Your task to perform on an android device: change notifications settings Image 0: 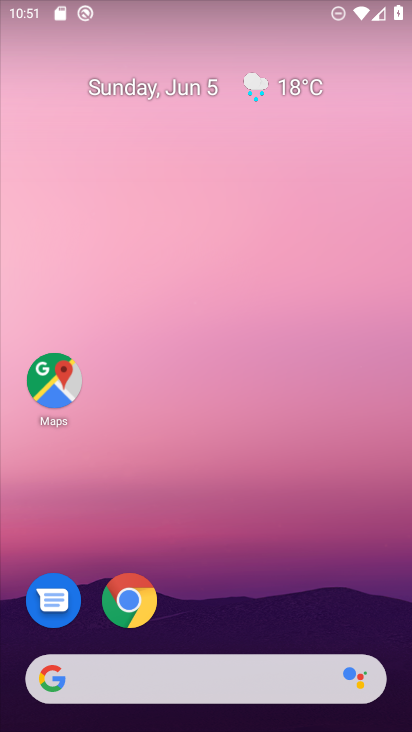
Step 0: drag from (255, 565) to (319, 147)
Your task to perform on an android device: change notifications settings Image 1: 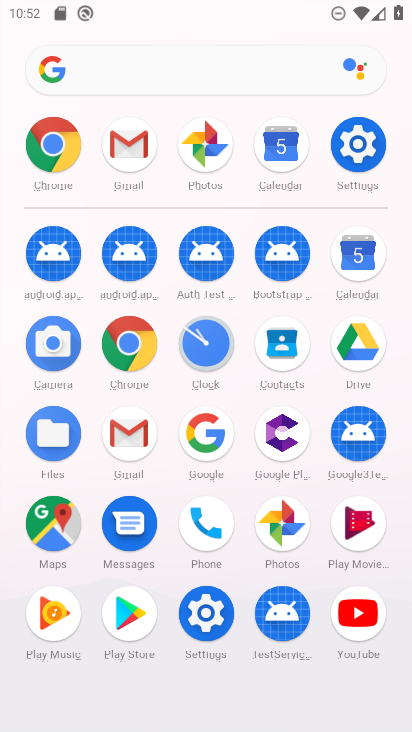
Step 1: click (371, 155)
Your task to perform on an android device: change notifications settings Image 2: 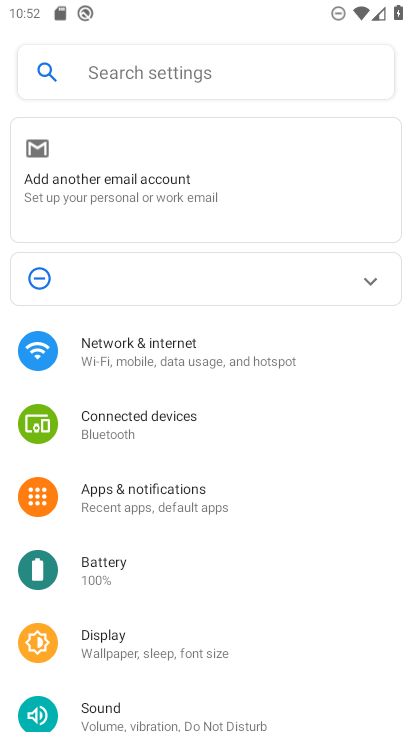
Step 2: click (176, 498)
Your task to perform on an android device: change notifications settings Image 3: 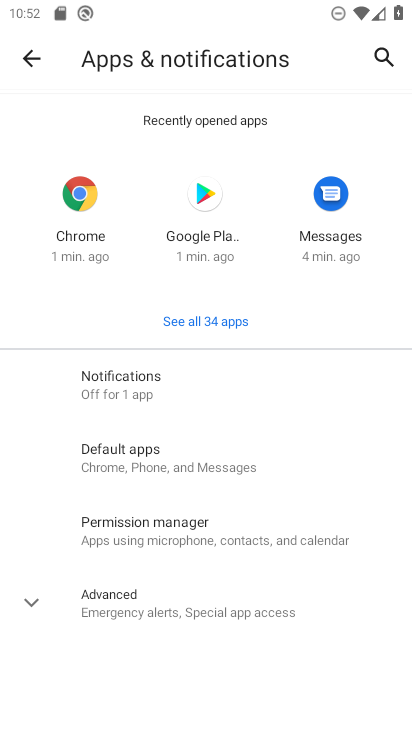
Step 3: click (168, 391)
Your task to perform on an android device: change notifications settings Image 4: 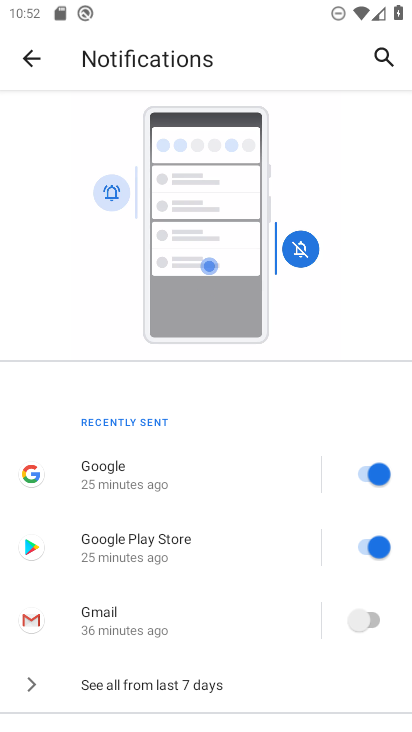
Step 4: drag from (218, 686) to (280, 136)
Your task to perform on an android device: change notifications settings Image 5: 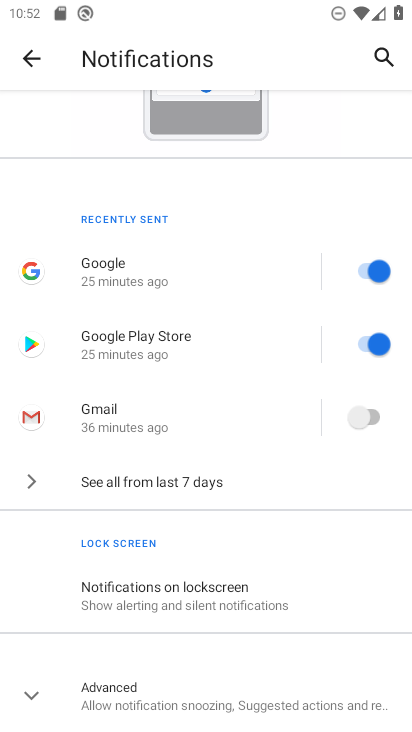
Step 5: click (122, 688)
Your task to perform on an android device: change notifications settings Image 6: 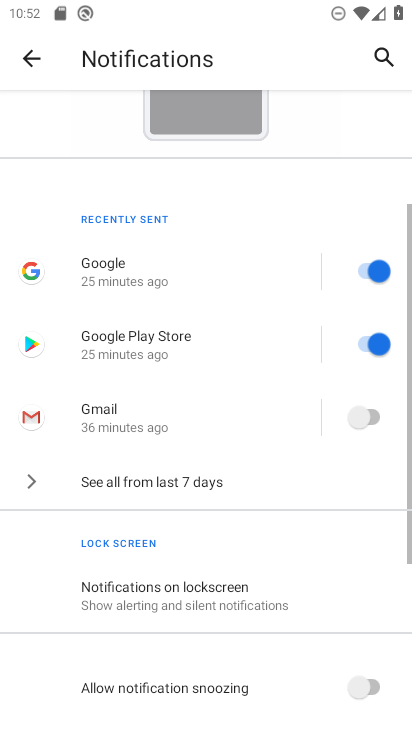
Step 6: drag from (136, 664) to (225, 250)
Your task to perform on an android device: change notifications settings Image 7: 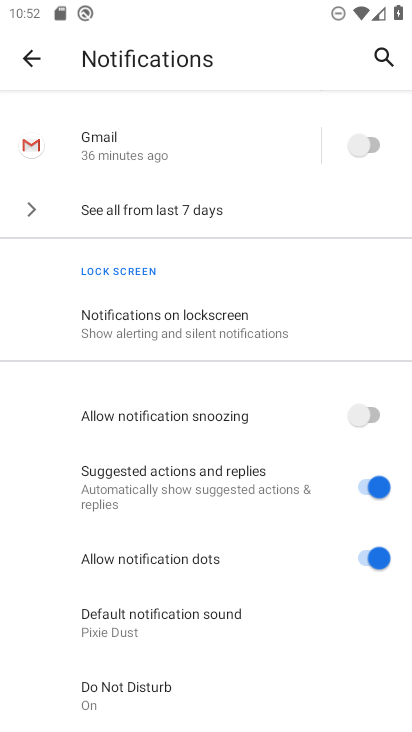
Step 7: click (366, 413)
Your task to perform on an android device: change notifications settings Image 8: 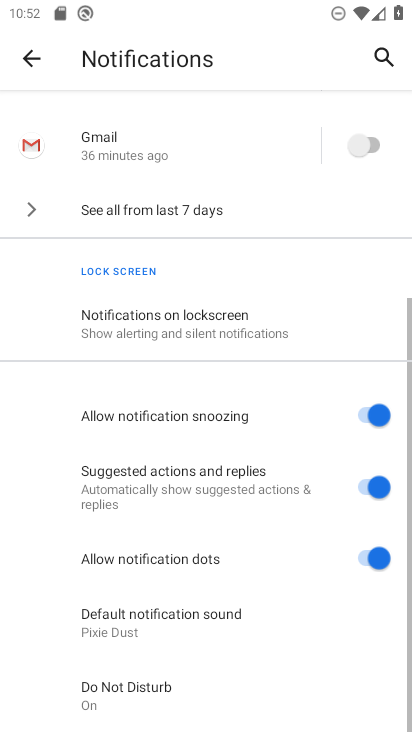
Step 8: task complete